Your task to perform on an android device: make emails show in primary in the gmail app Image 0: 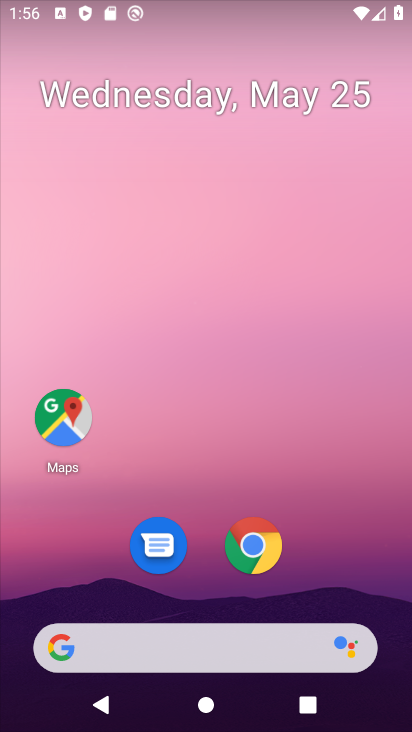
Step 0: drag from (366, 577) to (165, 87)
Your task to perform on an android device: make emails show in primary in the gmail app Image 1: 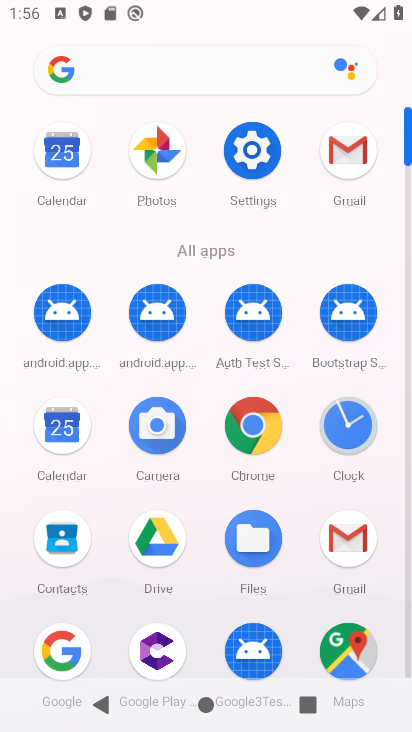
Step 1: click (343, 166)
Your task to perform on an android device: make emails show in primary in the gmail app Image 2: 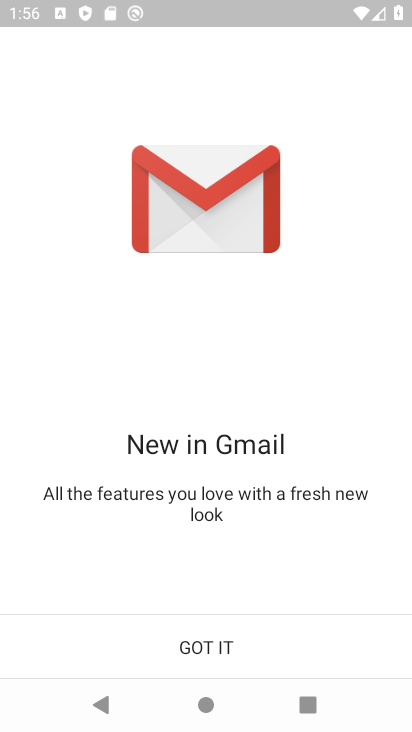
Step 2: click (267, 640)
Your task to perform on an android device: make emails show in primary in the gmail app Image 3: 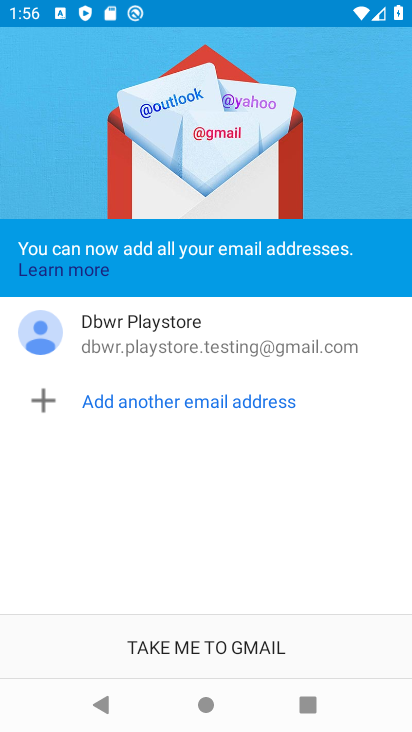
Step 3: click (267, 640)
Your task to perform on an android device: make emails show in primary in the gmail app Image 4: 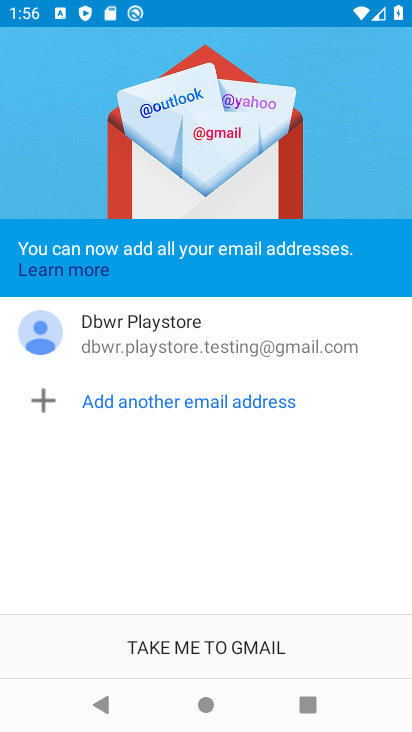
Step 4: click (267, 640)
Your task to perform on an android device: make emails show in primary in the gmail app Image 5: 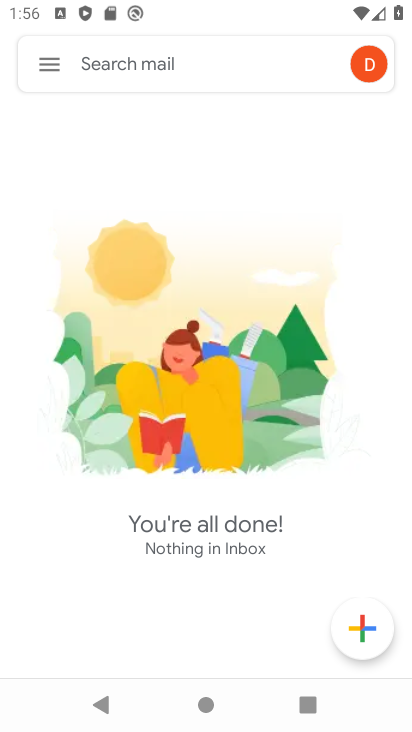
Step 5: click (68, 69)
Your task to perform on an android device: make emails show in primary in the gmail app Image 6: 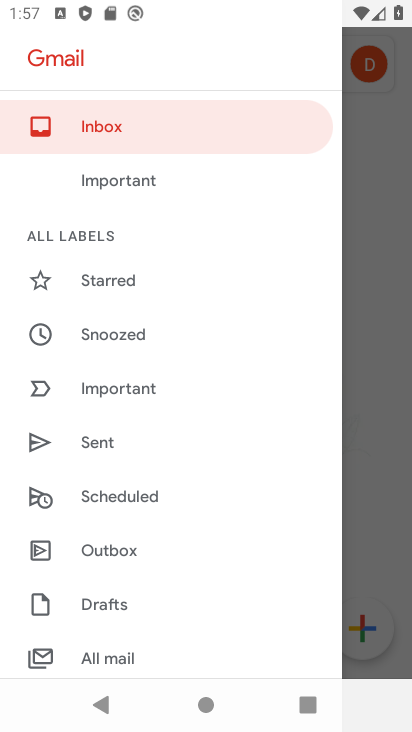
Step 6: task complete